Your task to perform on an android device: change the clock display to show seconds Image 0: 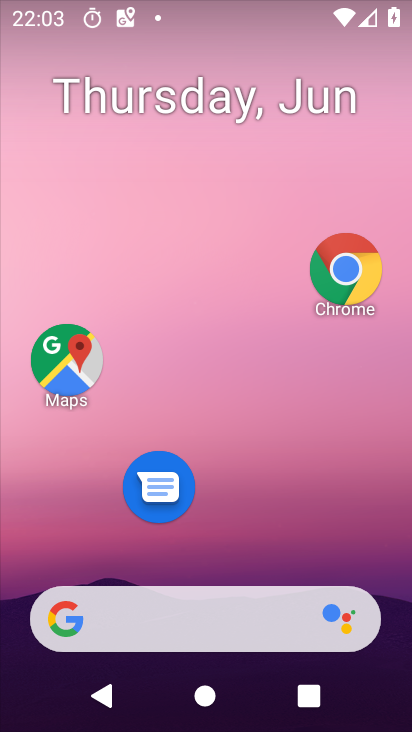
Step 0: drag from (297, 539) to (316, 288)
Your task to perform on an android device: change the clock display to show seconds Image 1: 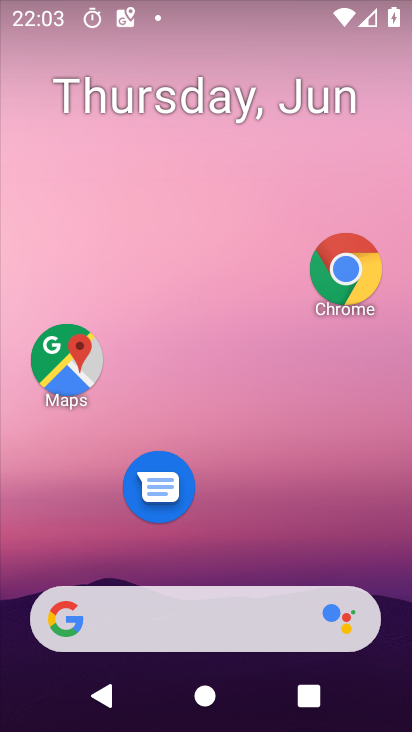
Step 1: drag from (204, 563) to (44, 3)
Your task to perform on an android device: change the clock display to show seconds Image 2: 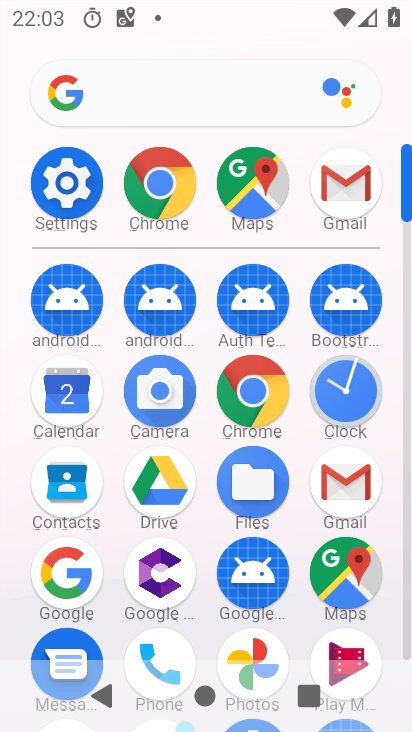
Step 2: click (328, 383)
Your task to perform on an android device: change the clock display to show seconds Image 3: 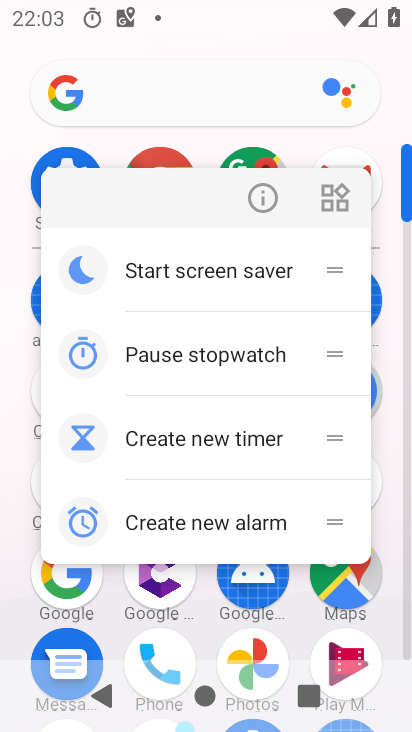
Step 3: click (253, 201)
Your task to perform on an android device: change the clock display to show seconds Image 4: 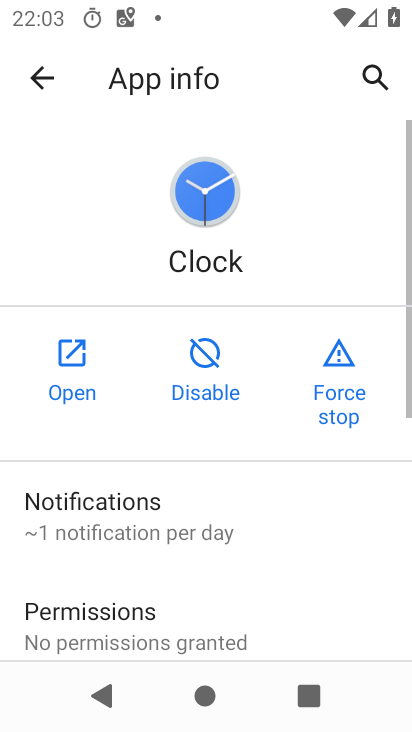
Step 4: click (59, 354)
Your task to perform on an android device: change the clock display to show seconds Image 5: 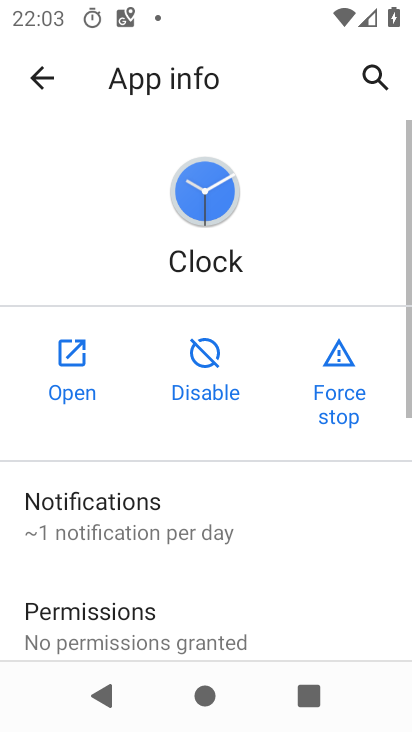
Step 5: click (59, 354)
Your task to perform on an android device: change the clock display to show seconds Image 6: 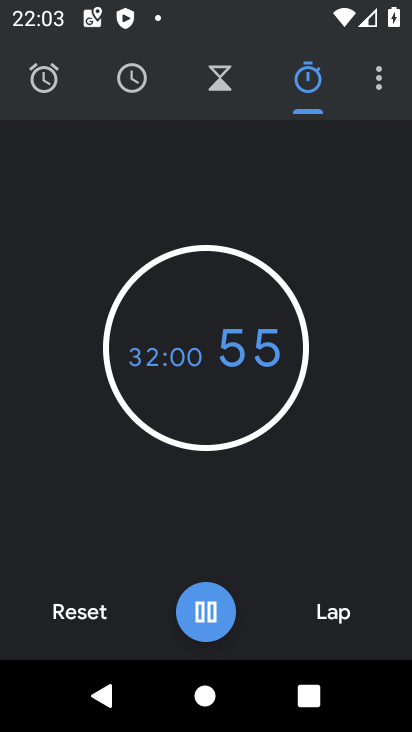
Step 6: click (378, 77)
Your task to perform on an android device: change the clock display to show seconds Image 7: 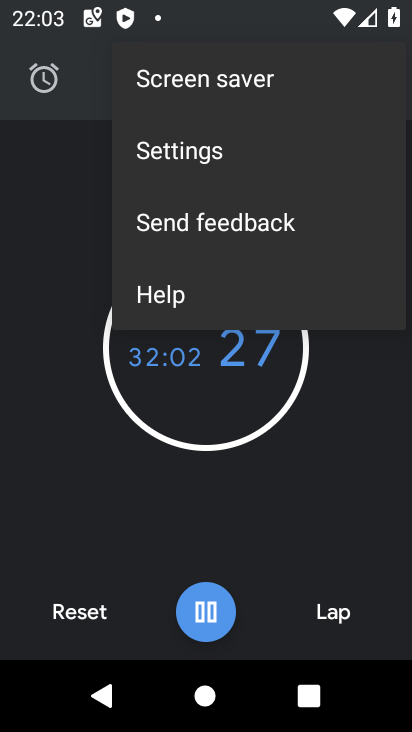
Step 7: click (261, 141)
Your task to perform on an android device: change the clock display to show seconds Image 8: 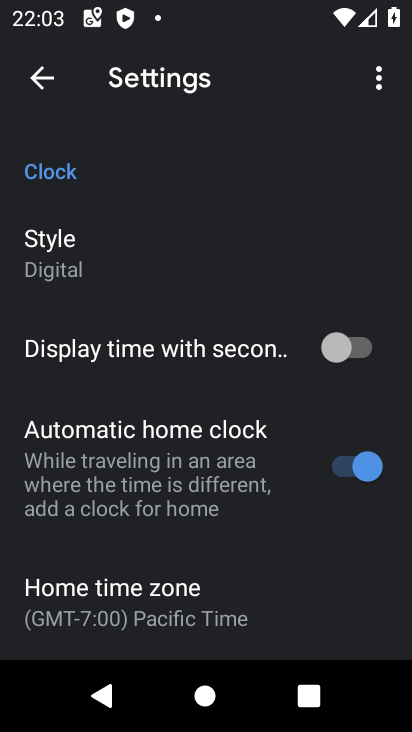
Step 8: click (329, 351)
Your task to perform on an android device: change the clock display to show seconds Image 9: 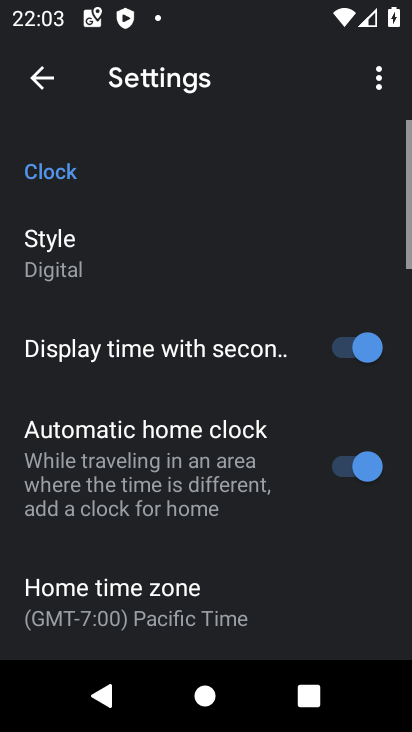
Step 9: task complete